Your task to perform on an android device: add a contact Image 0: 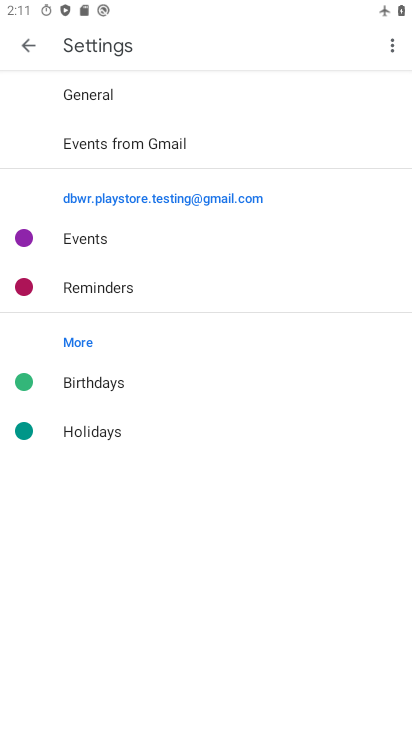
Step 0: press home button
Your task to perform on an android device: add a contact Image 1: 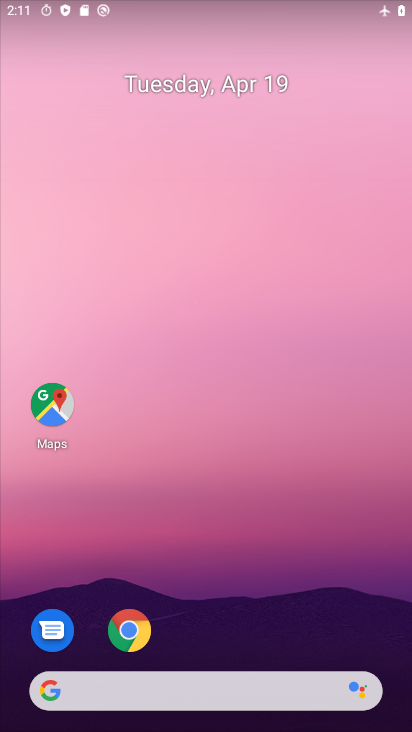
Step 1: drag from (225, 507) to (247, 125)
Your task to perform on an android device: add a contact Image 2: 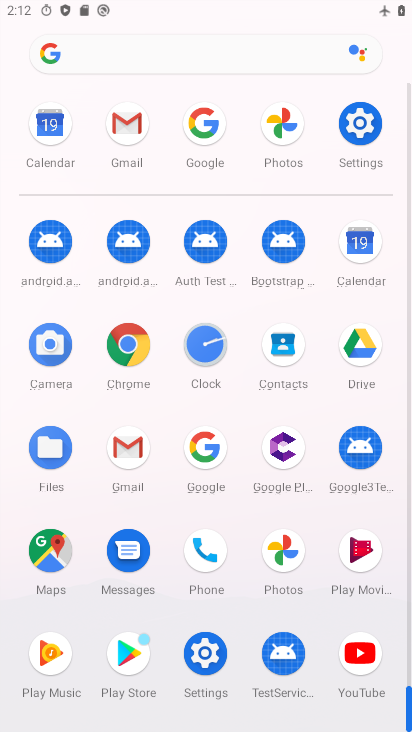
Step 2: click (280, 350)
Your task to perform on an android device: add a contact Image 3: 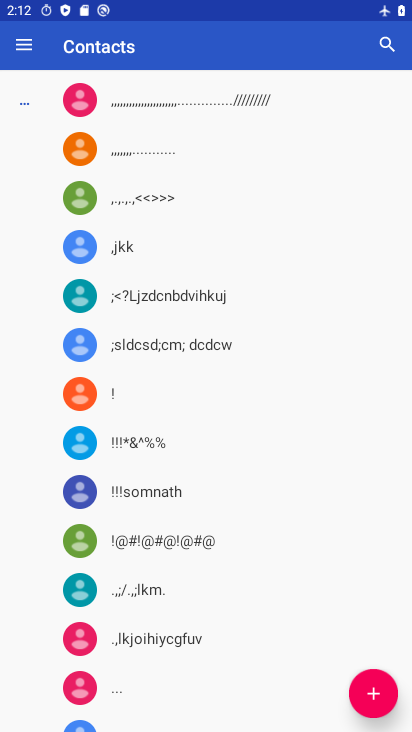
Step 3: click (380, 699)
Your task to perform on an android device: add a contact Image 4: 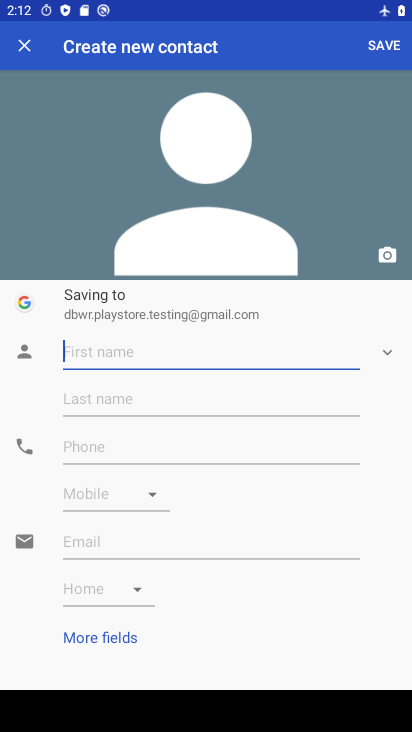
Step 4: type "oiuyhjj"
Your task to perform on an android device: add a contact Image 5: 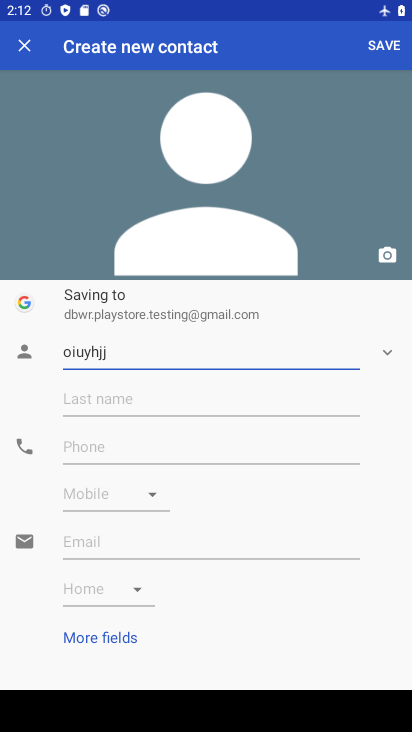
Step 5: click (187, 449)
Your task to perform on an android device: add a contact Image 6: 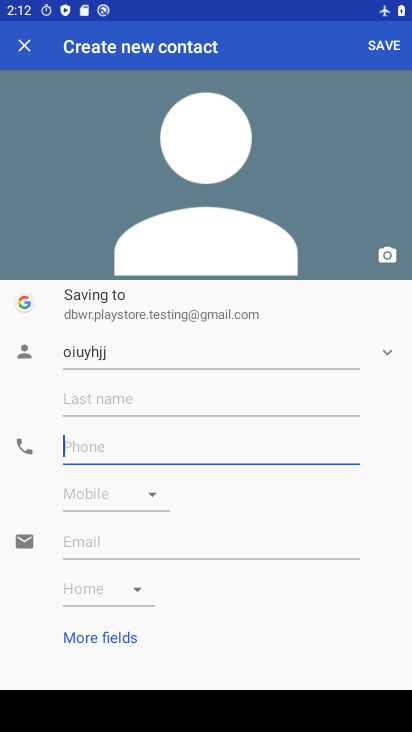
Step 6: type "3456787654345"
Your task to perform on an android device: add a contact Image 7: 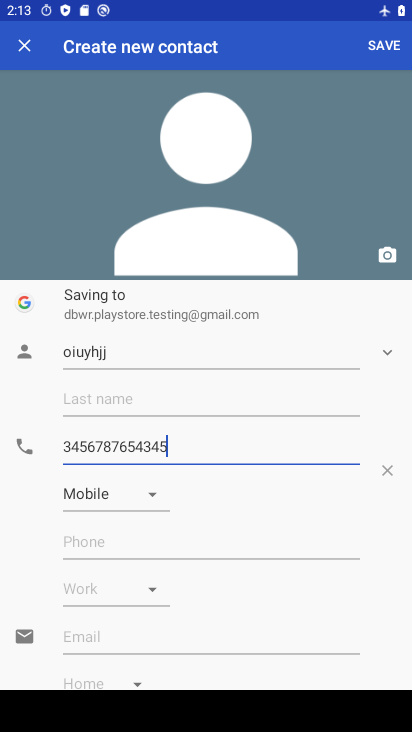
Step 7: click (380, 43)
Your task to perform on an android device: add a contact Image 8: 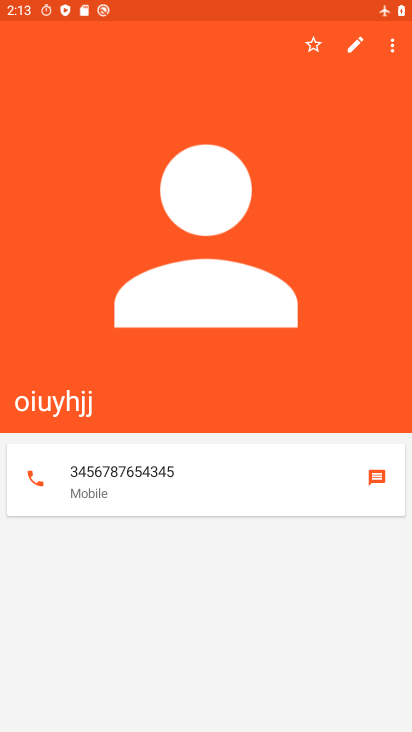
Step 8: task complete